Your task to perform on an android device: check google app version Image 0: 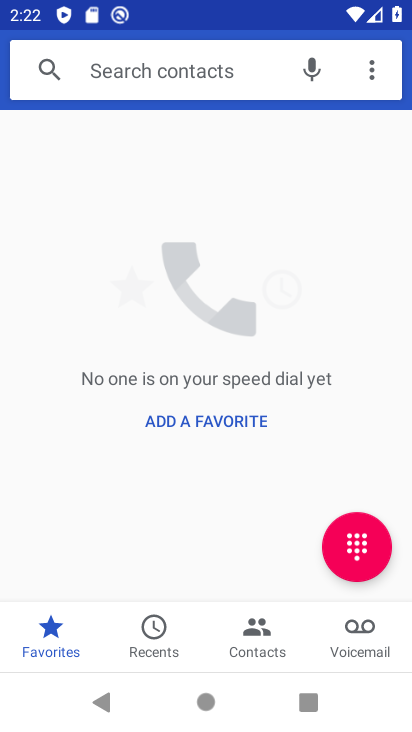
Step 0: press back button
Your task to perform on an android device: check google app version Image 1: 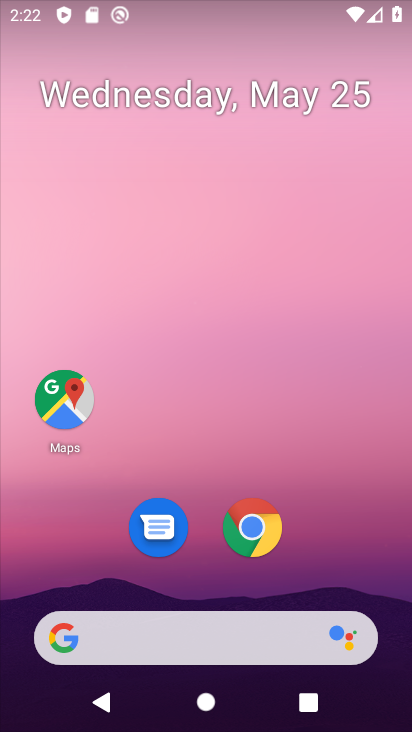
Step 1: drag from (159, 571) to (269, 11)
Your task to perform on an android device: check google app version Image 2: 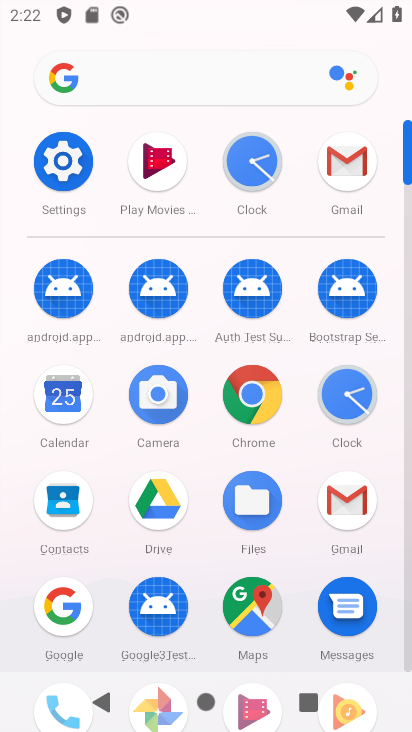
Step 2: drag from (192, 598) to (268, 124)
Your task to perform on an android device: check google app version Image 3: 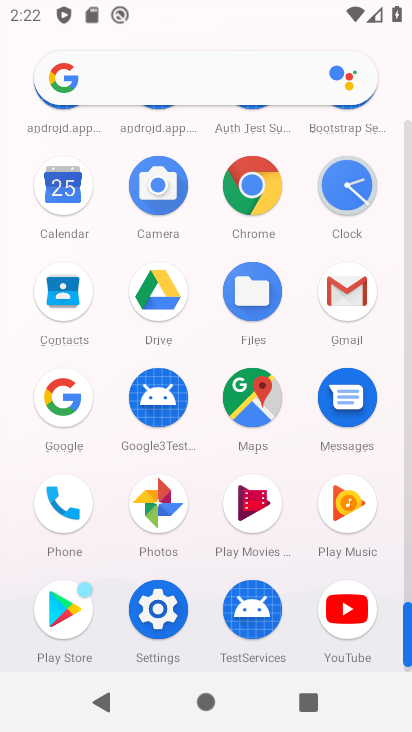
Step 3: click (67, 403)
Your task to perform on an android device: check google app version Image 4: 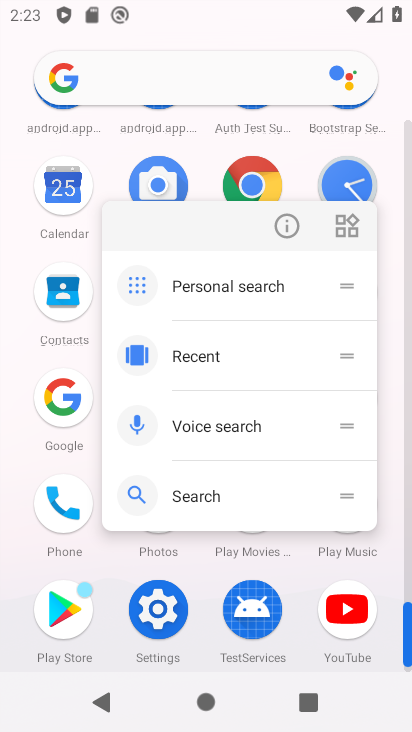
Step 4: click (290, 230)
Your task to perform on an android device: check google app version Image 5: 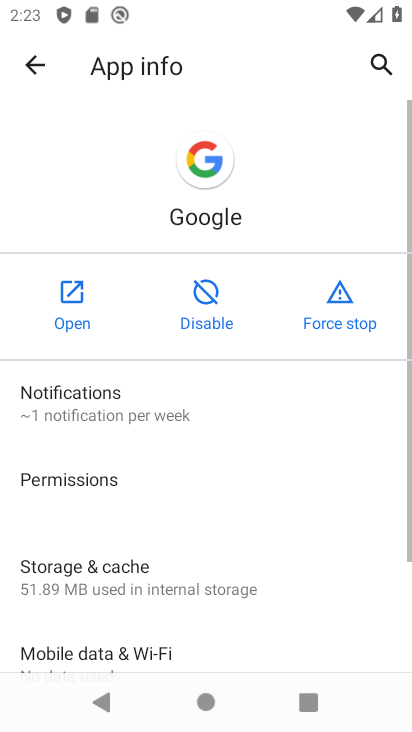
Step 5: drag from (182, 593) to (245, 144)
Your task to perform on an android device: check google app version Image 6: 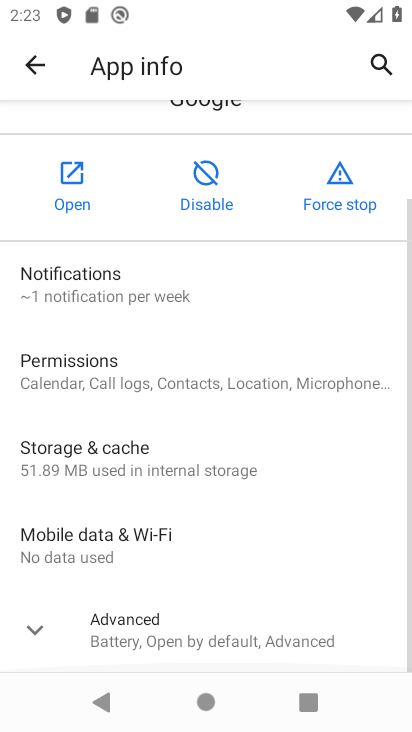
Step 6: drag from (156, 571) to (235, 19)
Your task to perform on an android device: check google app version Image 7: 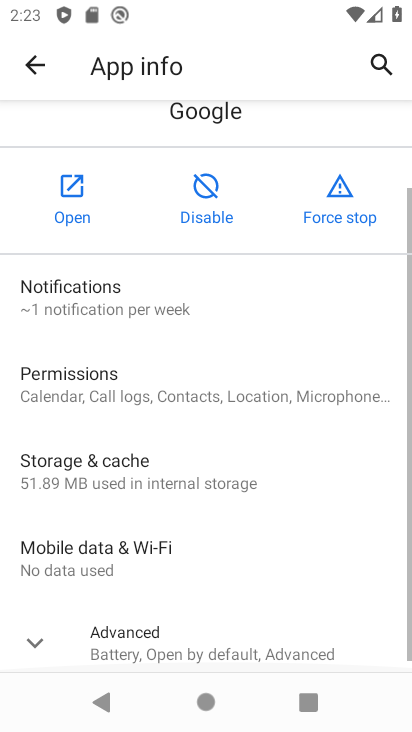
Step 7: click (137, 620)
Your task to perform on an android device: check google app version Image 8: 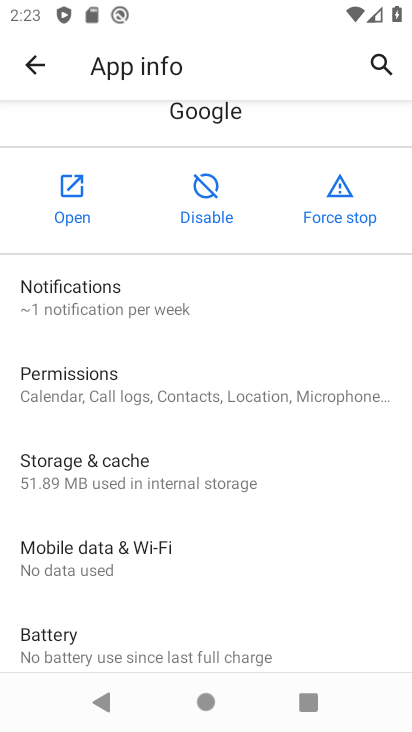
Step 8: task complete